Your task to perform on an android device: turn on the 12-hour format for clock Image 0: 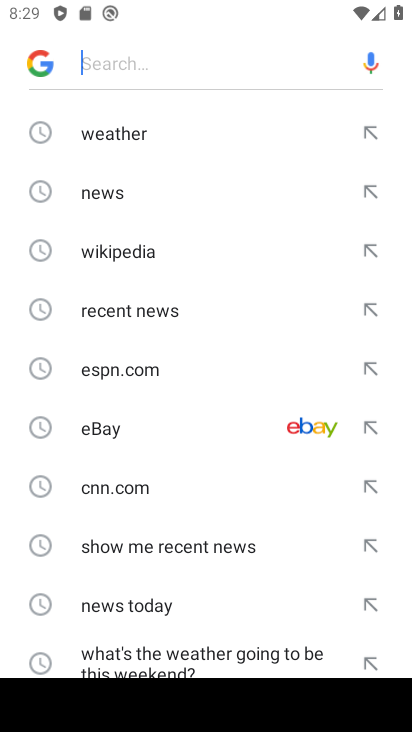
Step 0: press home button
Your task to perform on an android device: turn on the 12-hour format for clock Image 1: 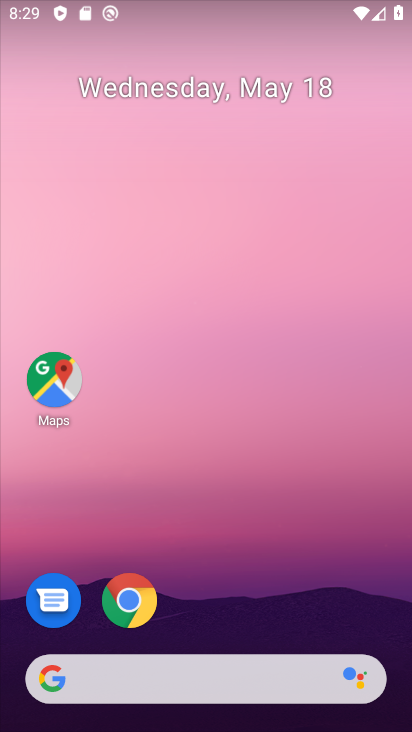
Step 1: drag from (127, 567) to (315, 106)
Your task to perform on an android device: turn on the 12-hour format for clock Image 2: 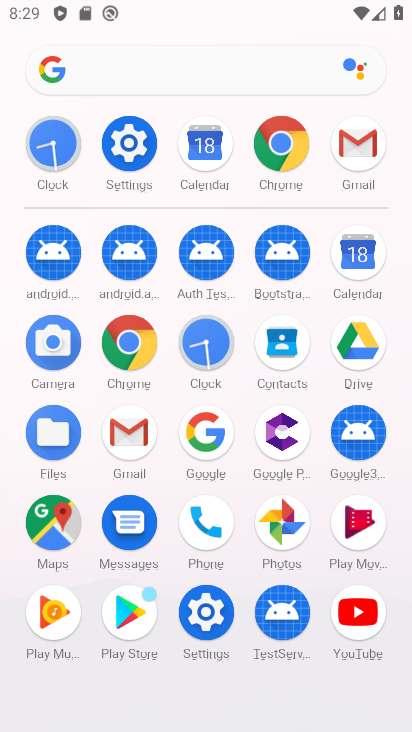
Step 2: click (206, 341)
Your task to perform on an android device: turn on the 12-hour format for clock Image 3: 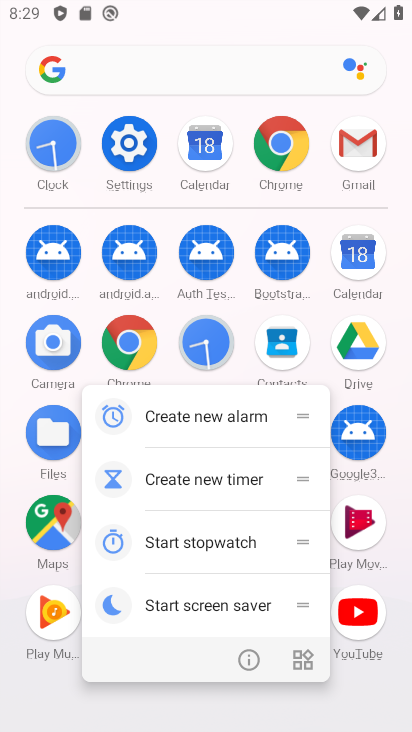
Step 3: click (207, 328)
Your task to perform on an android device: turn on the 12-hour format for clock Image 4: 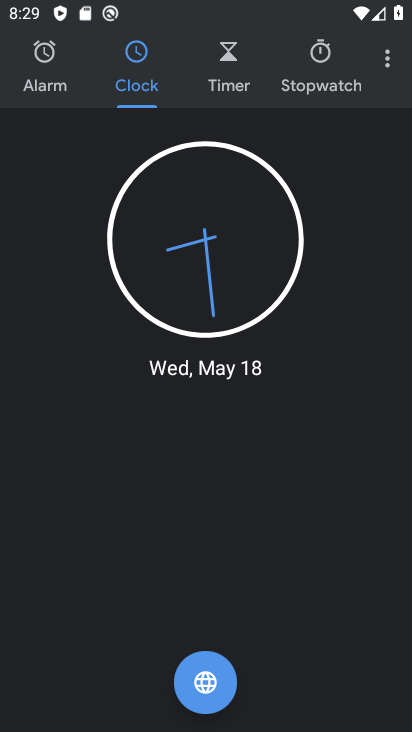
Step 4: click (375, 61)
Your task to perform on an android device: turn on the 12-hour format for clock Image 5: 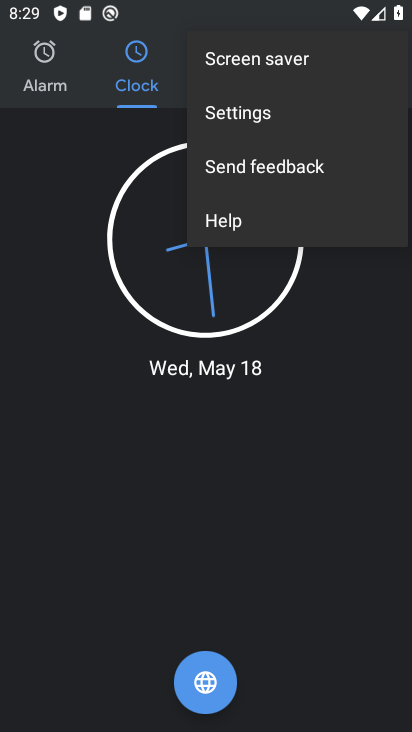
Step 5: click (280, 116)
Your task to perform on an android device: turn on the 12-hour format for clock Image 6: 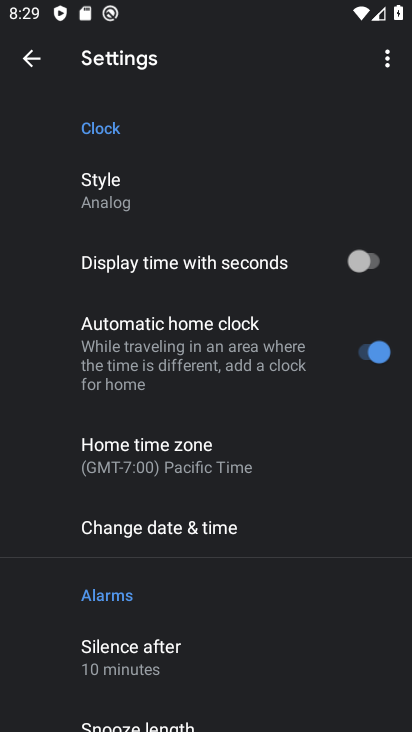
Step 6: click (189, 532)
Your task to perform on an android device: turn on the 12-hour format for clock Image 7: 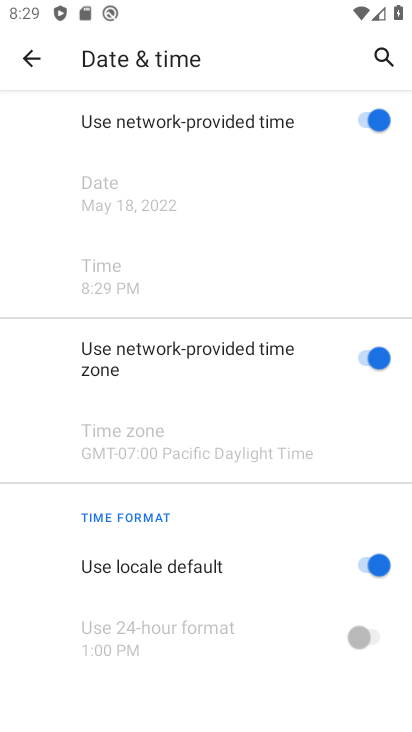
Step 7: task complete